Your task to perform on an android device: Open Google Maps Image 0: 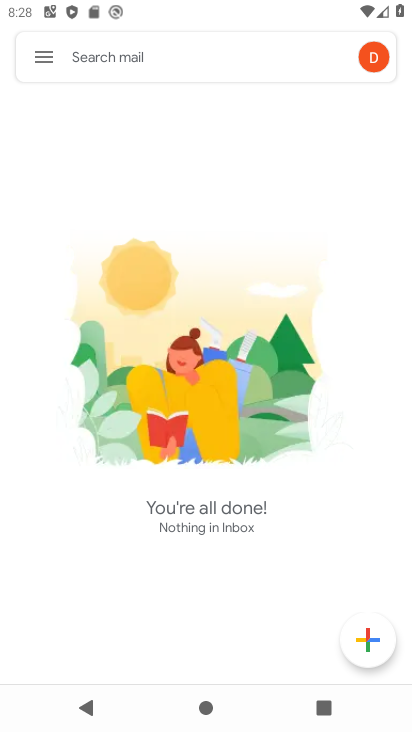
Step 0: press home button
Your task to perform on an android device: Open Google Maps Image 1: 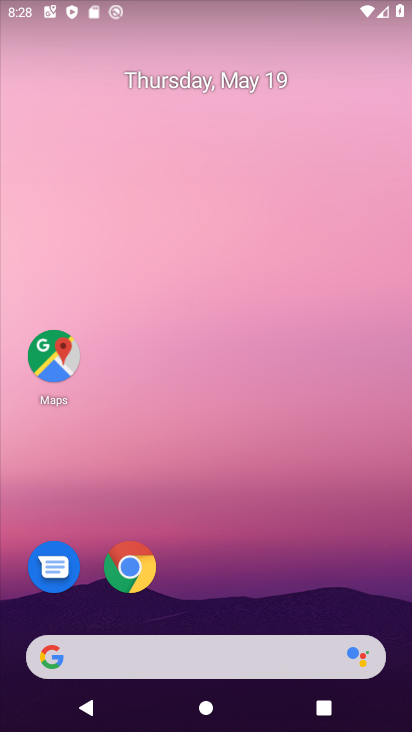
Step 1: click (62, 365)
Your task to perform on an android device: Open Google Maps Image 2: 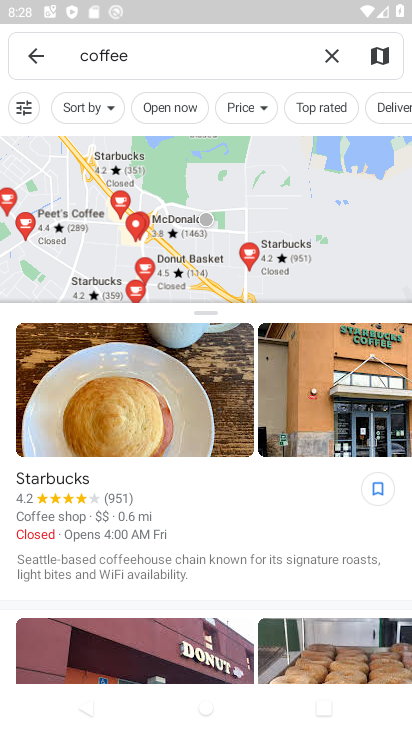
Step 2: click (32, 64)
Your task to perform on an android device: Open Google Maps Image 3: 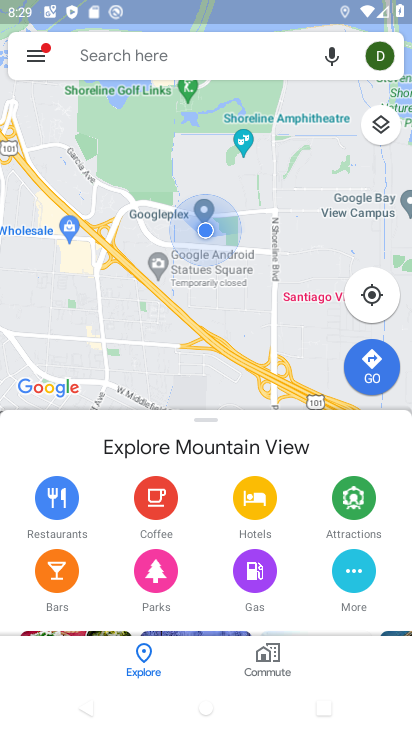
Step 3: task complete